Your task to perform on an android device: add a contact in the contacts app Image 0: 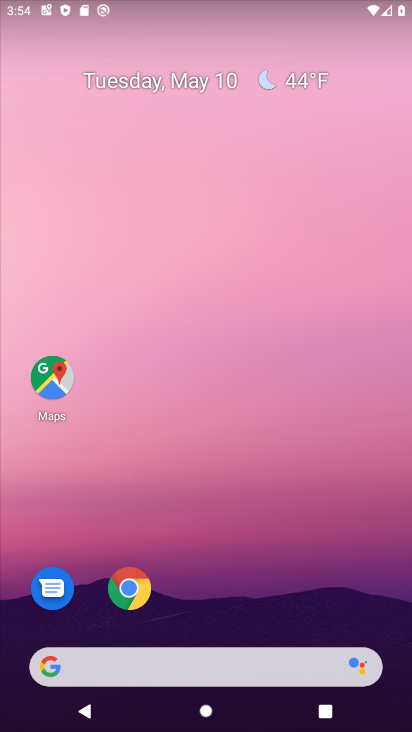
Step 0: drag from (266, 566) to (221, 144)
Your task to perform on an android device: add a contact in the contacts app Image 1: 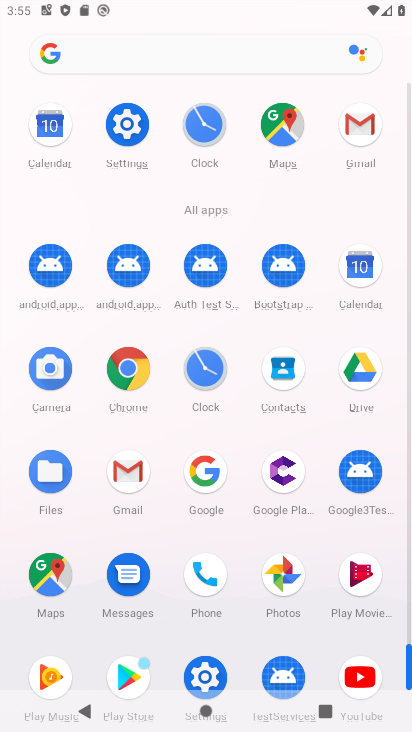
Step 1: click (289, 366)
Your task to perform on an android device: add a contact in the contacts app Image 2: 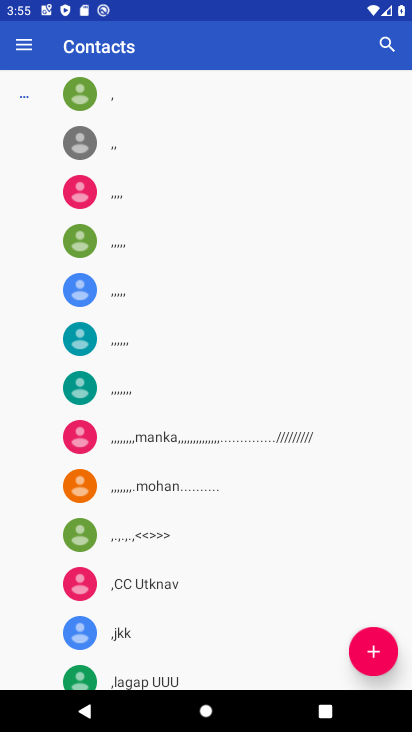
Step 2: click (360, 654)
Your task to perform on an android device: add a contact in the contacts app Image 3: 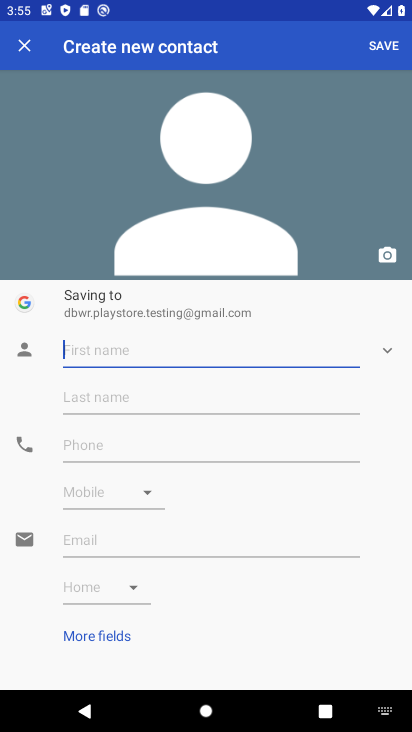
Step 3: type "rrtt"
Your task to perform on an android device: add a contact in the contacts app Image 4: 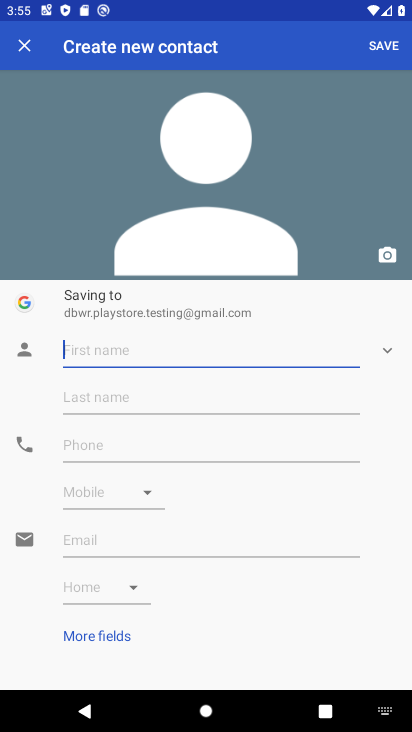
Step 4: click (107, 454)
Your task to perform on an android device: add a contact in the contacts app Image 5: 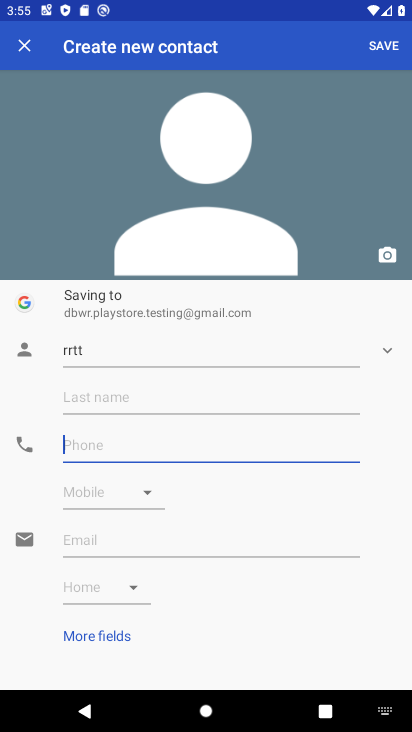
Step 5: type "3211234567"
Your task to perform on an android device: add a contact in the contacts app Image 6: 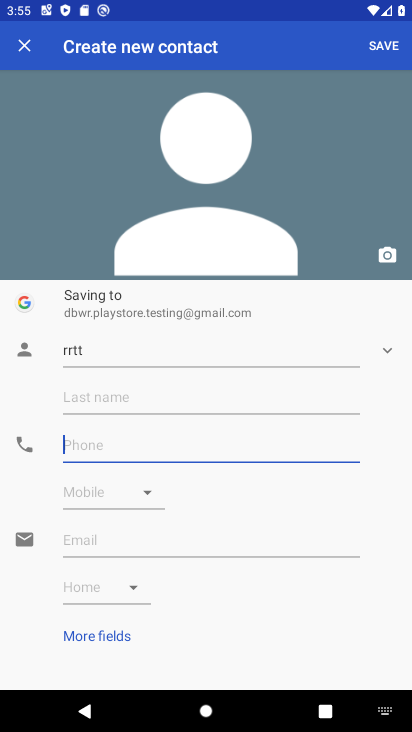
Step 6: click (388, 29)
Your task to perform on an android device: add a contact in the contacts app Image 7: 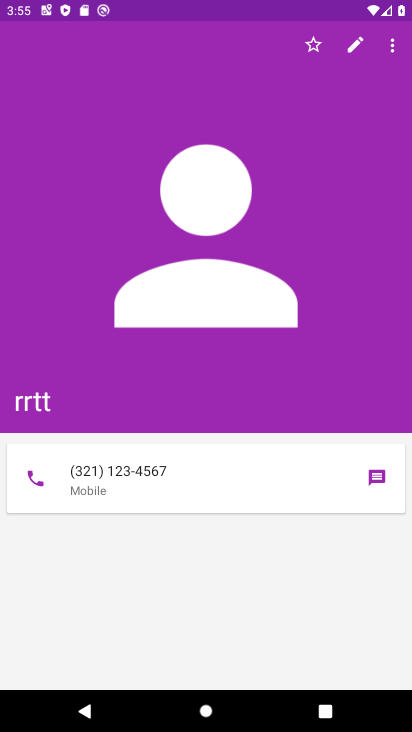
Step 7: task complete